Your task to perform on an android device: Open wifi settings Image 0: 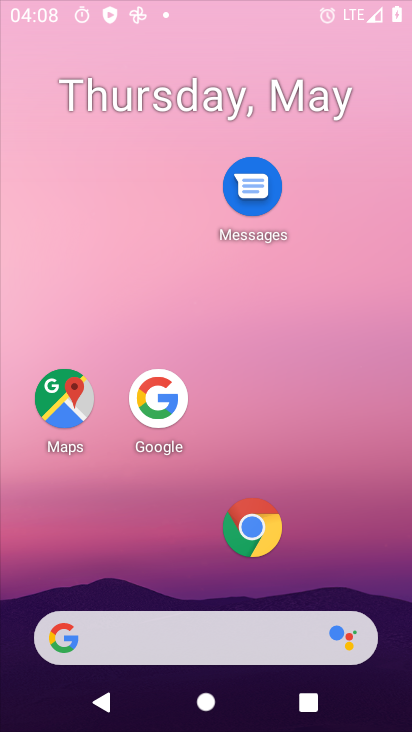
Step 0: click (358, 289)
Your task to perform on an android device: Open wifi settings Image 1: 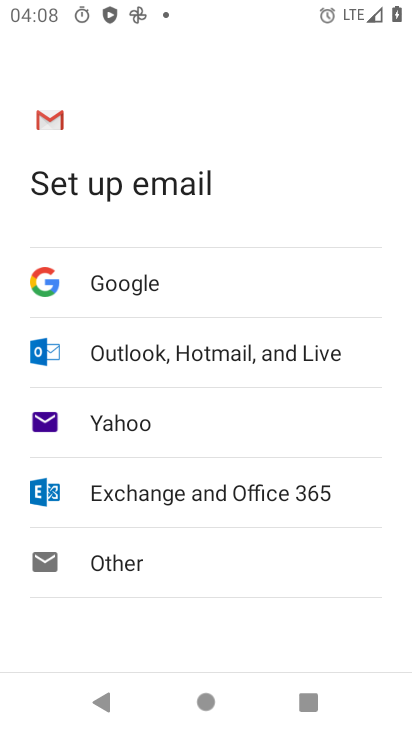
Step 1: press home button
Your task to perform on an android device: Open wifi settings Image 2: 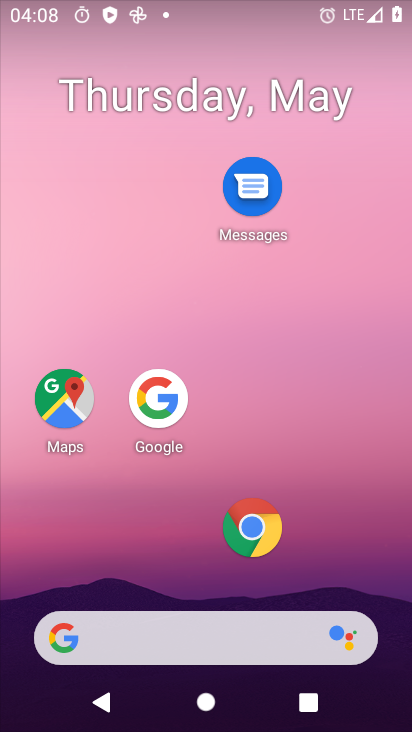
Step 2: drag from (192, 569) to (174, 75)
Your task to perform on an android device: Open wifi settings Image 3: 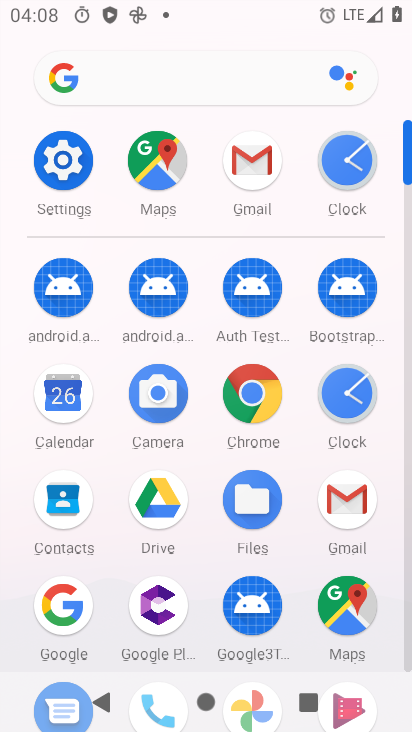
Step 3: click (64, 164)
Your task to perform on an android device: Open wifi settings Image 4: 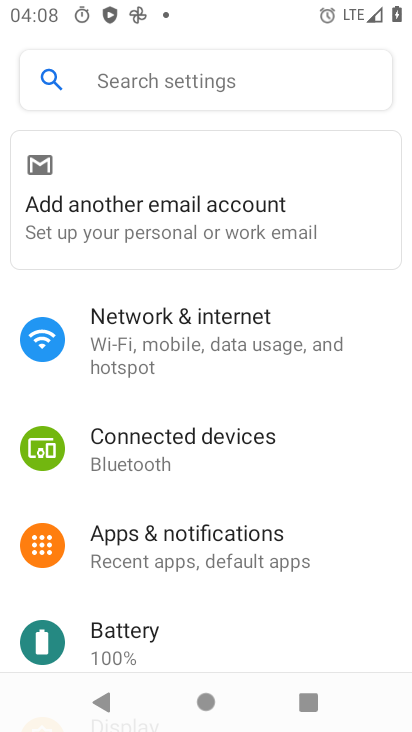
Step 4: click (156, 362)
Your task to perform on an android device: Open wifi settings Image 5: 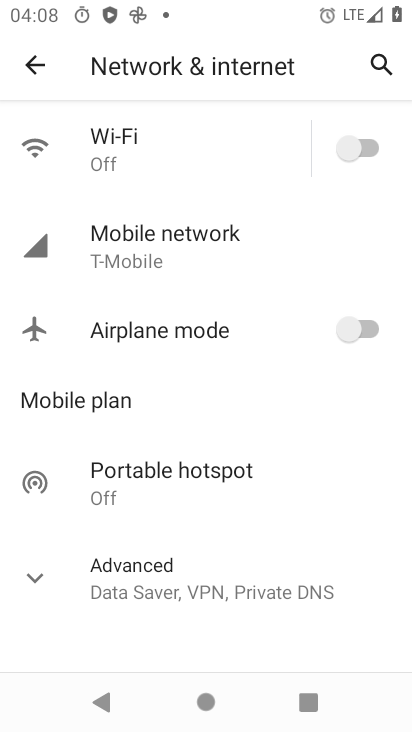
Step 5: click (185, 130)
Your task to perform on an android device: Open wifi settings Image 6: 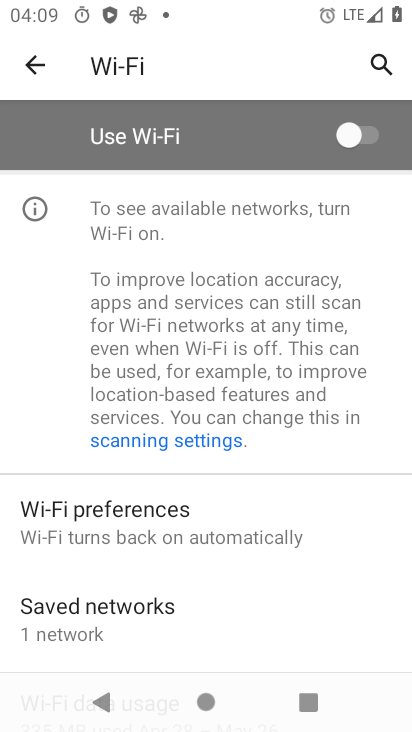
Step 6: task complete